Your task to perform on an android device: see tabs open on other devices in the chrome app Image 0: 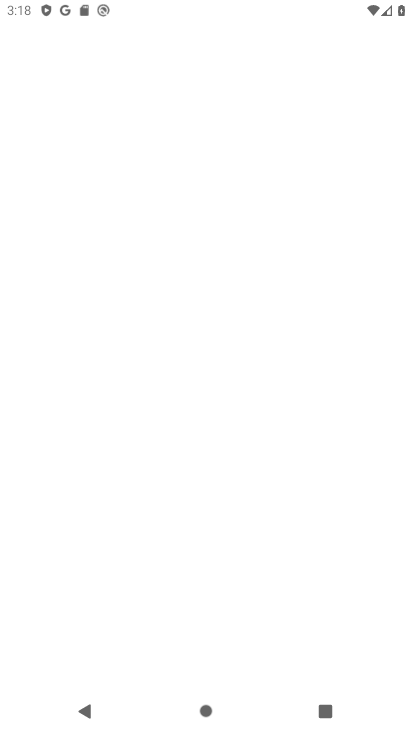
Step 0: press home button
Your task to perform on an android device: see tabs open on other devices in the chrome app Image 1: 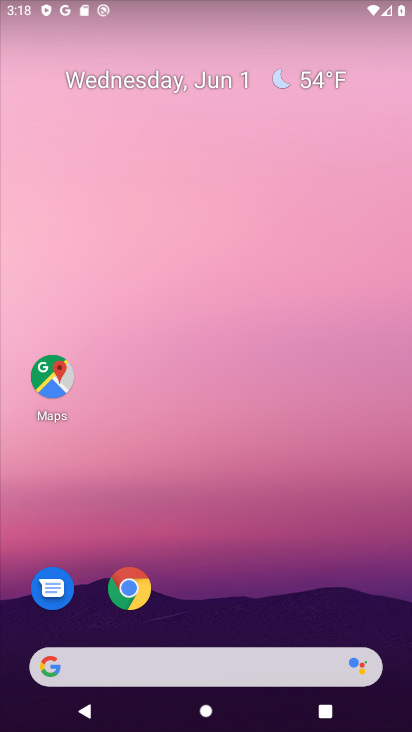
Step 1: click (138, 591)
Your task to perform on an android device: see tabs open on other devices in the chrome app Image 2: 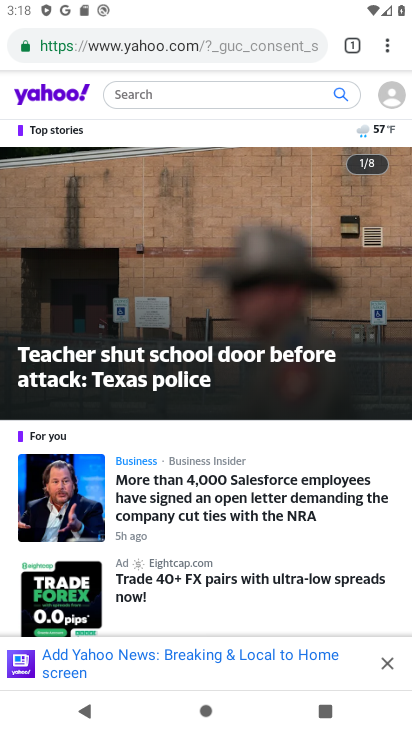
Step 2: click (390, 44)
Your task to perform on an android device: see tabs open on other devices in the chrome app Image 3: 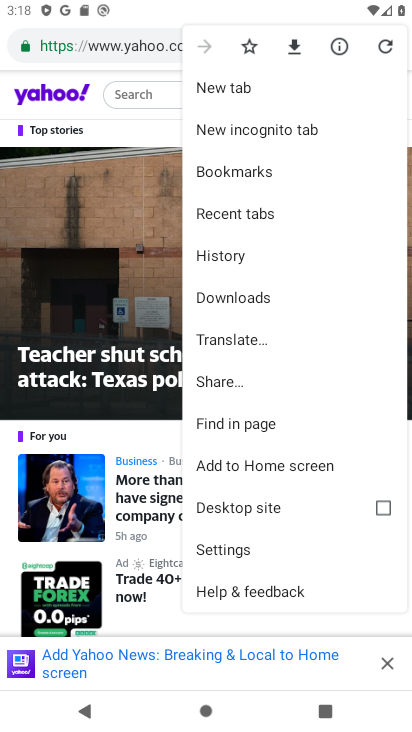
Step 3: click (246, 209)
Your task to perform on an android device: see tabs open on other devices in the chrome app Image 4: 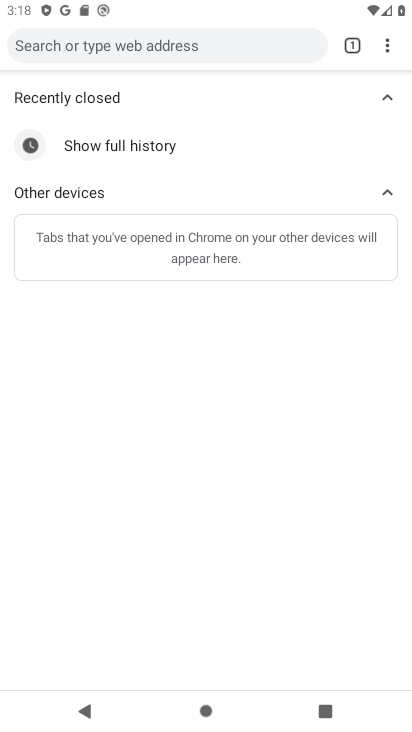
Step 4: task complete